Your task to perform on an android device: Open Google Maps Image 0: 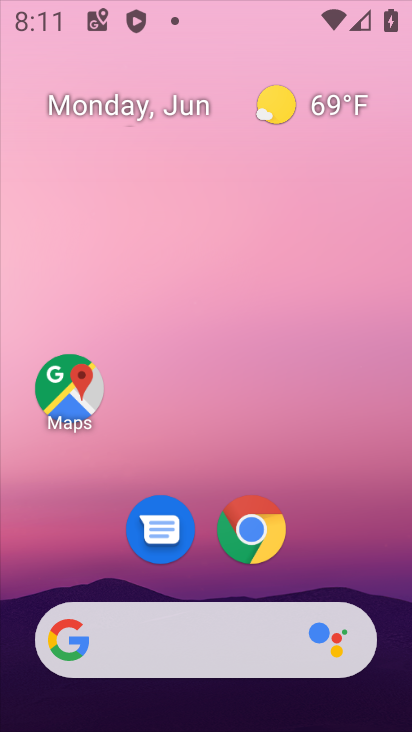
Step 0: click (255, 522)
Your task to perform on an android device: Open Google Maps Image 1: 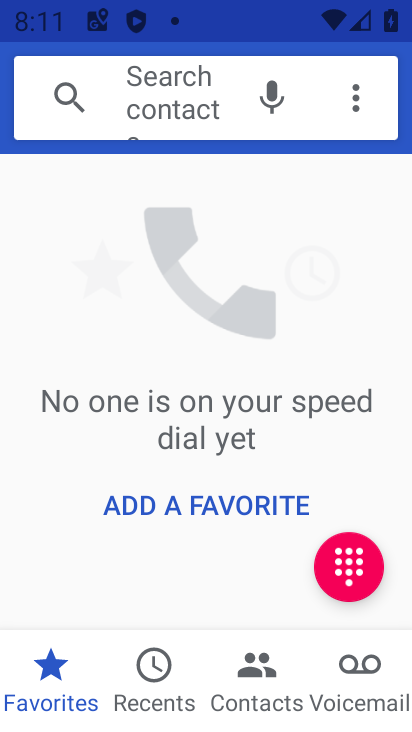
Step 1: press home button
Your task to perform on an android device: Open Google Maps Image 2: 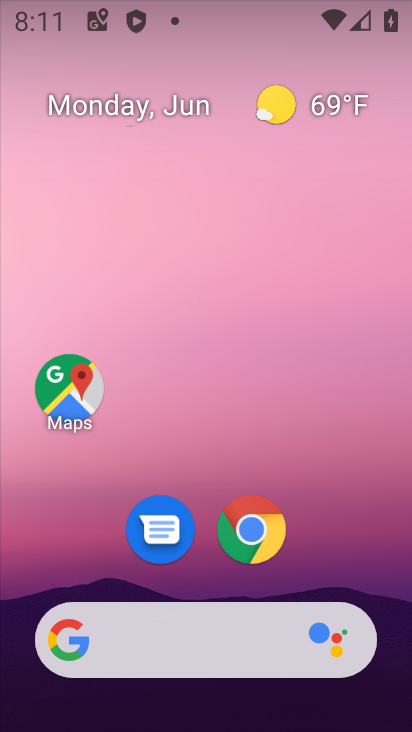
Step 2: click (57, 428)
Your task to perform on an android device: Open Google Maps Image 3: 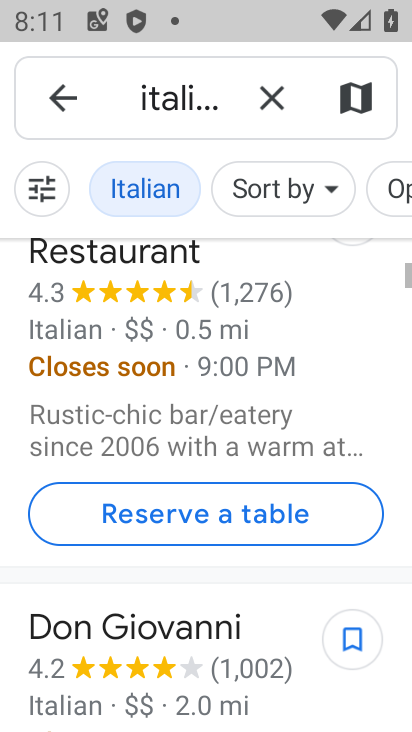
Step 3: task complete